Your task to perform on an android device: open app "Nova Launcher" (install if not already installed) Image 0: 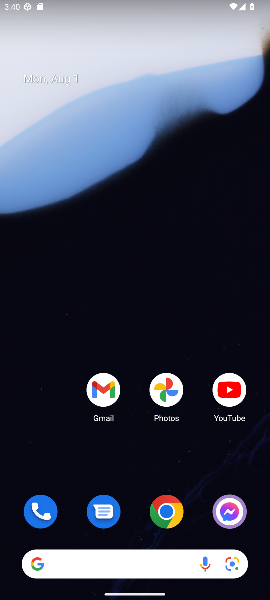
Step 0: drag from (141, 456) to (169, 70)
Your task to perform on an android device: open app "Nova Launcher" (install if not already installed) Image 1: 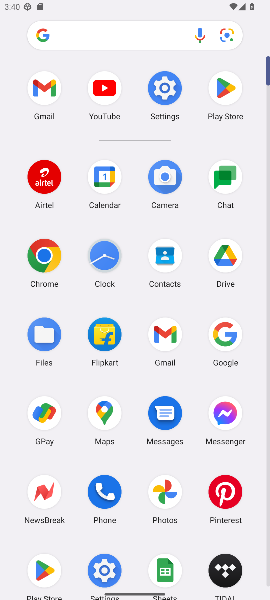
Step 1: click (216, 91)
Your task to perform on an android device: open app "Nova Launcher" (install if not already installed) Image 2: 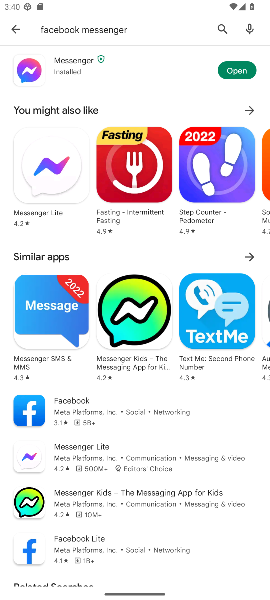
Step 2: click (12, 27)
Your task to perform on an android device: open app "Nova Launcher" (install if not already installed) Image 3: 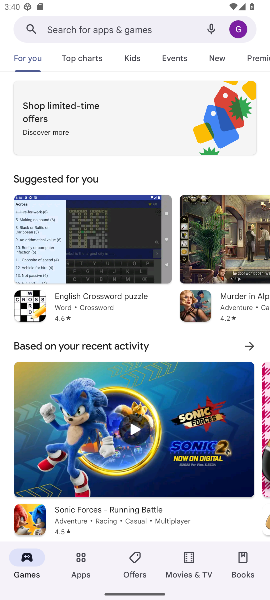
Step 3: click (97, 25)
Your task to perform on an android device: open app "Nova Launcher" (install if not already installed) Image 4: 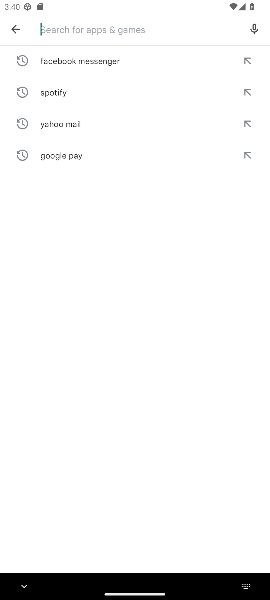
Step 4: type "Nova Launcher"
Your task to perform on an android device: open app "Nova Launcher" (install if not already installed) Image 5: 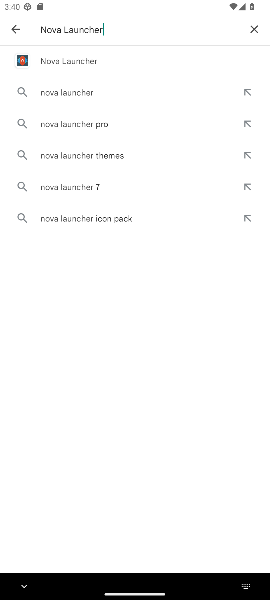
Step 5: click (75, 61)
Your task to perform on an android device: open app "Nova Launcher" (install if not already installed) Image 6: 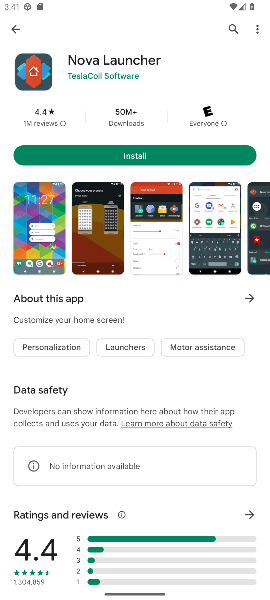
Step 6: click (143, 152)
Your task to perform on an android device: open app "Nova Launcher" (install if not already installed) Image 7: 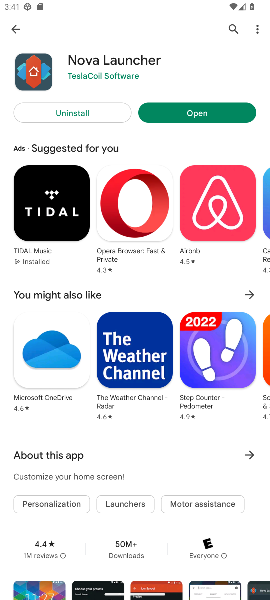
Step 7: click (191, 109)
Your task to perform on an android device: open app "Nova Launcher" (install if not already installed) Image 8: 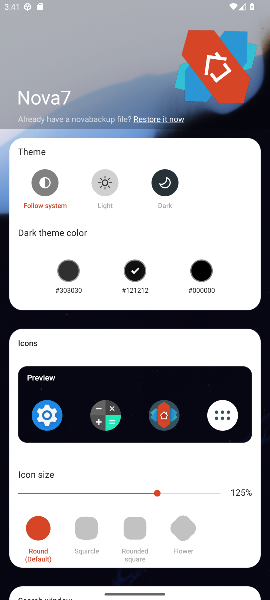
Step 8: task complete